Your task to perform on an android device: turn on improve location accuracy Image 0: 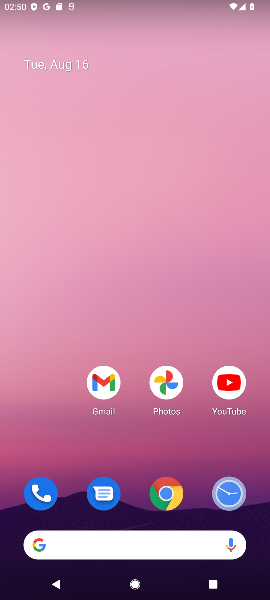
Step 0: press home button
Your task to perform on an android device: turn on improve location accuracy Image 1: 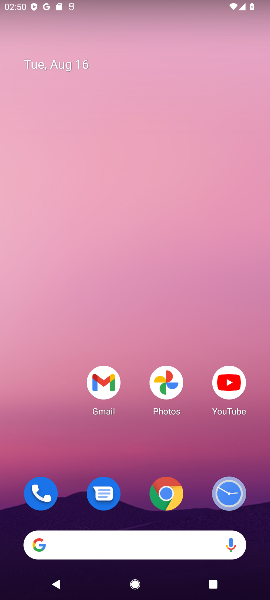
Step 1: drag from (58, 449) to (53, 98)
Your task to perform on an android device: turn on improve location accuracy Image 2: 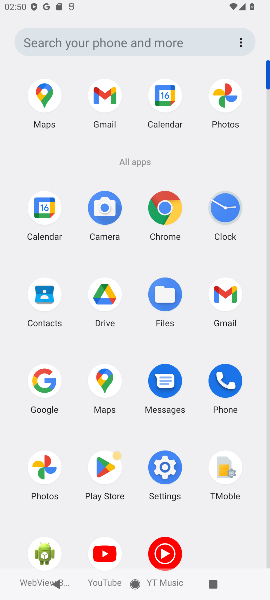
Step 2: click (160, 471)
Your task to perform on an android device: turn on improve location accuracy Image 3: 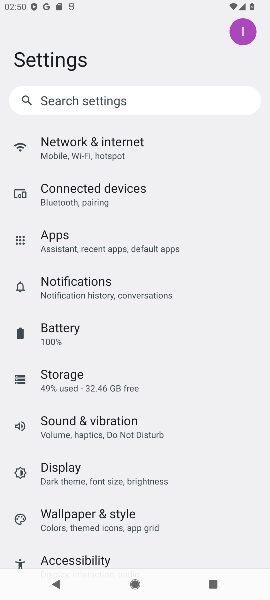
Step 3: drag from (214, 362) to (228, 293)
Your task to perform on an android device: turn on improve location accuracy Image 4: 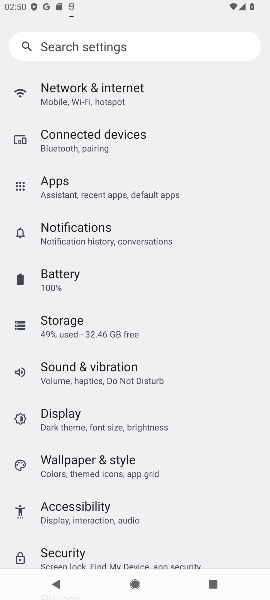
Step 4: drag from (219, 420) to (230, 351)
Your task to perform on an android device: turn on improve location accuracy Image 5: 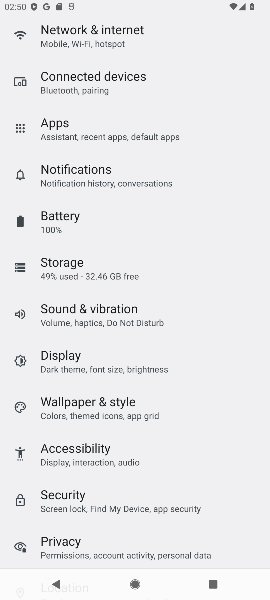
Step 5: drag from (224, 447) to (231, 360)
Your task to perform on an android device: turn on improve location accuracy Image 6: 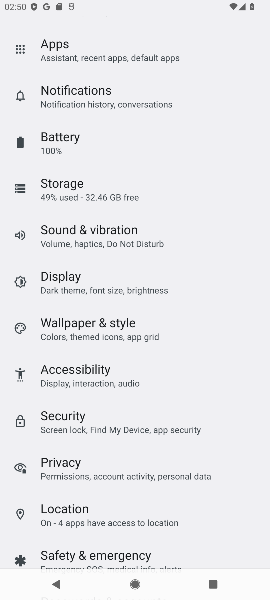
Step 6: drag from (227, 495) to (241, 400)
Your task to perform on an android device: turn on improve location accuracy Image 7: 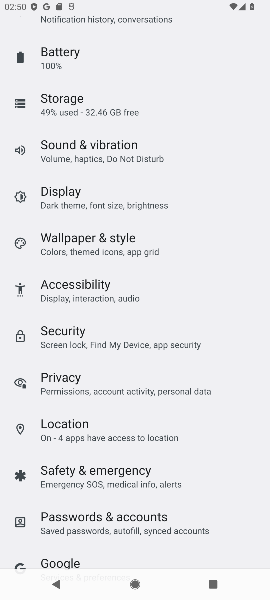
Step 7: drag from (223, 476) to (238, 390)
Your task to perform on an android device: turn on improve location accuracy Image 8: 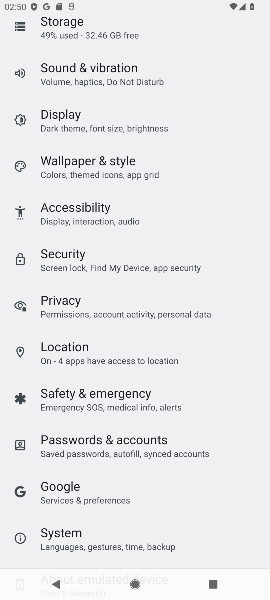
Step 8: drag from (227, 455) to (244, 330)
Your task to perform on an android device: turn on improve location accuracy Image 9: 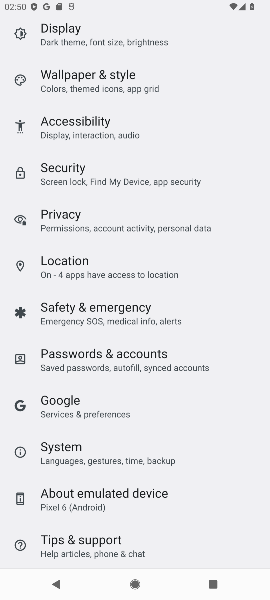
Step 9: drag from (240, 468) to (239, 281)
Your task to perform on an android device: turn on improve location accuracy Image 10: 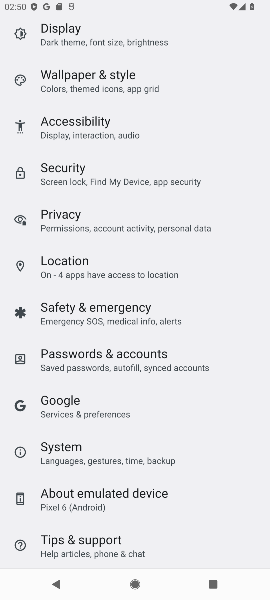
Step 10: click (199, 265)
Your task to perform on an android device: turn on improve location accuracy Image 11: 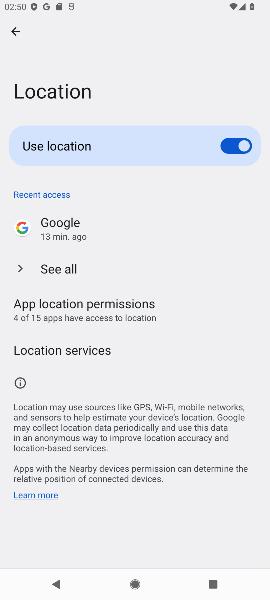
Step 11: click (132, 356)
Your task to perform on an android device: turn on improve location accuracy Image 12: 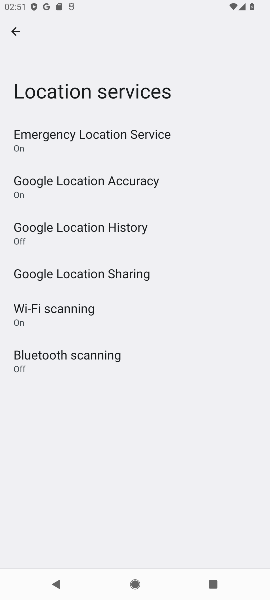
Step 12: click (131, 184)
Your task to perform on an android device: turn on improve location accuracy Image 13: 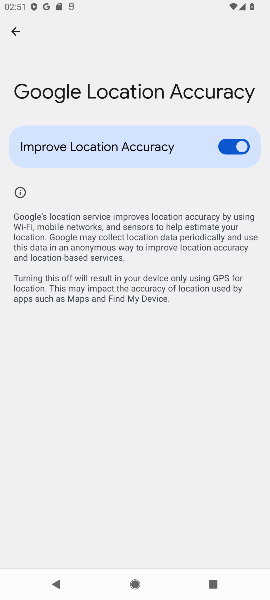
Step 13: task complete